Your task to perform on an android device: find snoozed emails in the gmail app Image 0: 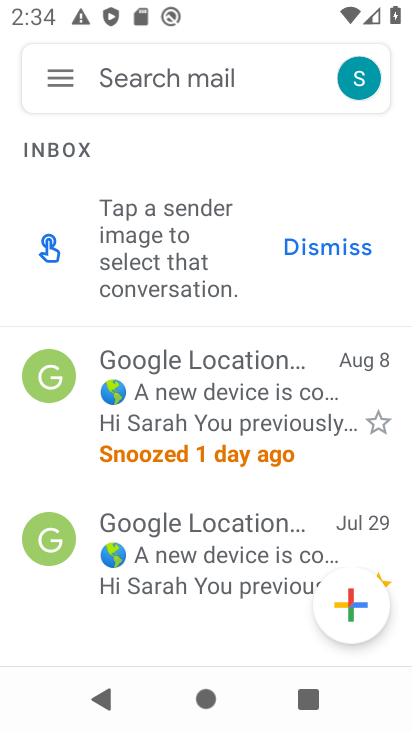
Step 0: drag from (373, 504) to (345, 39)
Your task to perform on an android device: find snoozed emails in the gmail app Image 1: 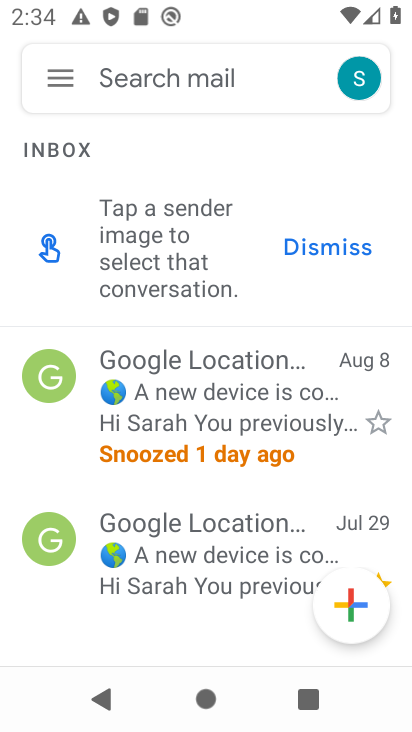
Step 1: press home button
Your task to perform on an android device: find snoozed emails in the gmail app Image 2: 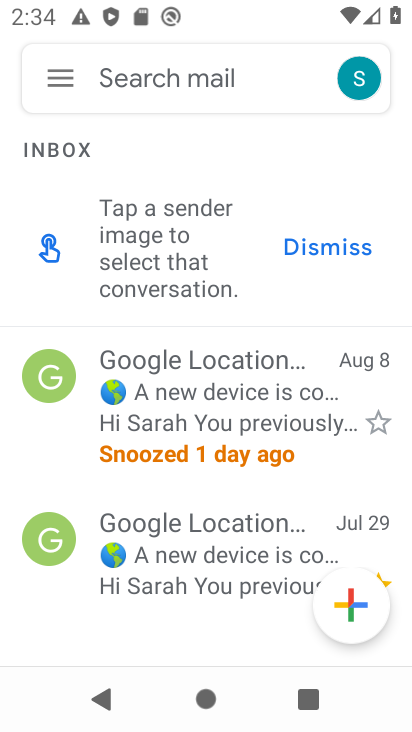
Step 2: press home button
Your task to perform on an android device: find snoozed emails in the gmail app Image 3: 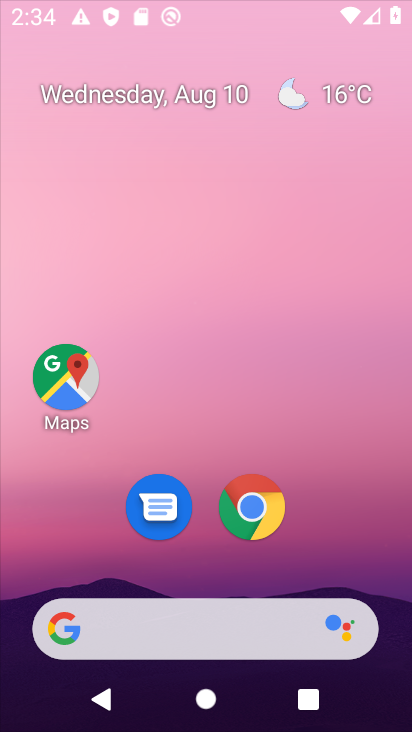
Step 3: press home button
Your task to perform on an android device: find snoozed emails in the gmail app Image 4: 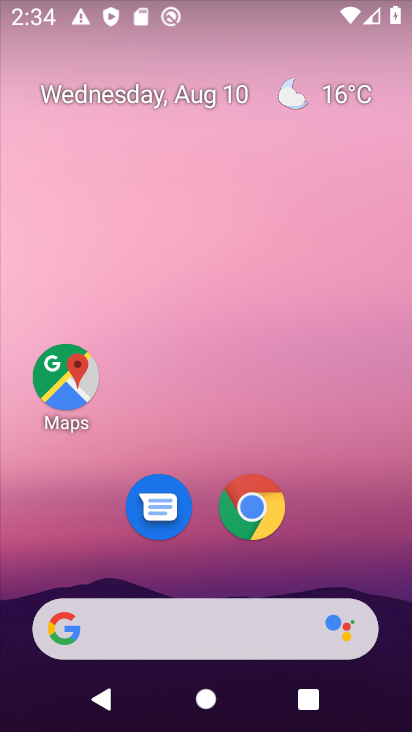
Step 4: drag from (346, 572) to (303, 3)
Your task to perform on an android device: find snoozed emails in the gmail app Image 5: 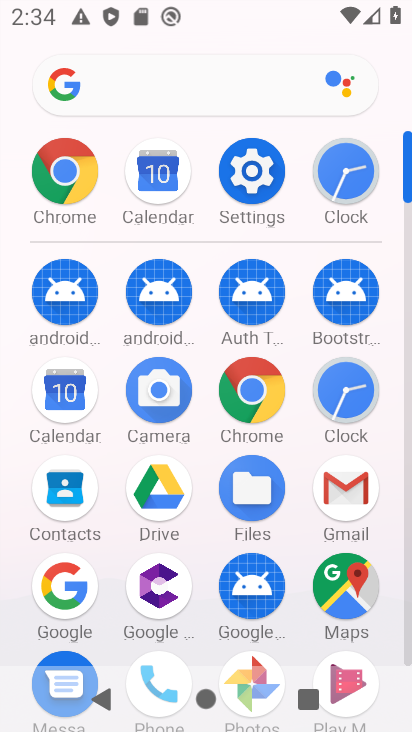
Step 5: click (340, 482)
Your task to perform on an android device: find snoozed emails in the gmail app Image 6: 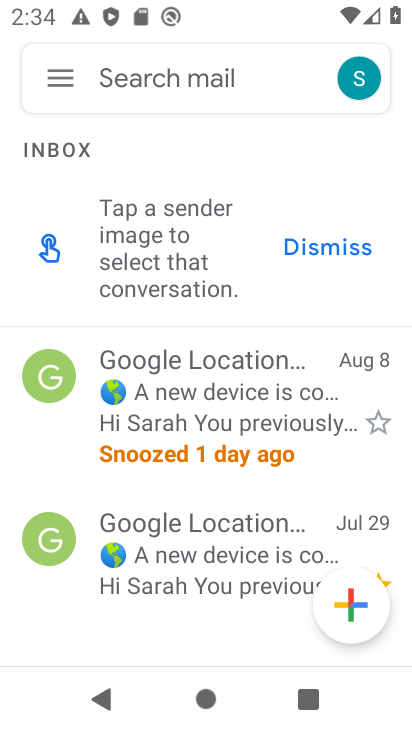
Step 6: click (69, 73)
Your task to perform on an android device: find snoozed emails in the gmail app Image 7: 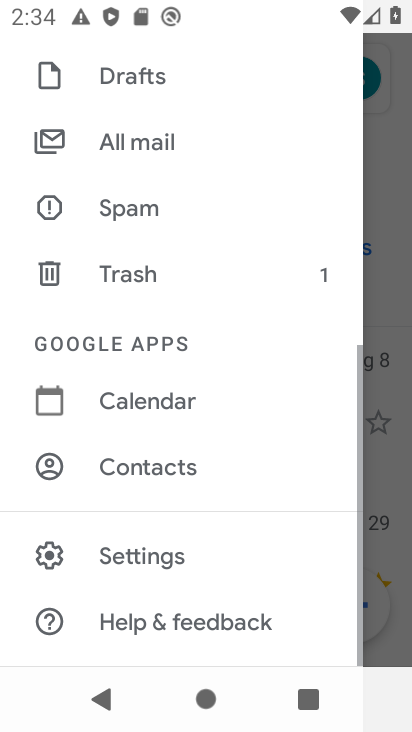
Step 7: drag from (151, 140) to (149, 712)
Your task to perform on an android device: find snoozed emails in the gmail app Image 8: 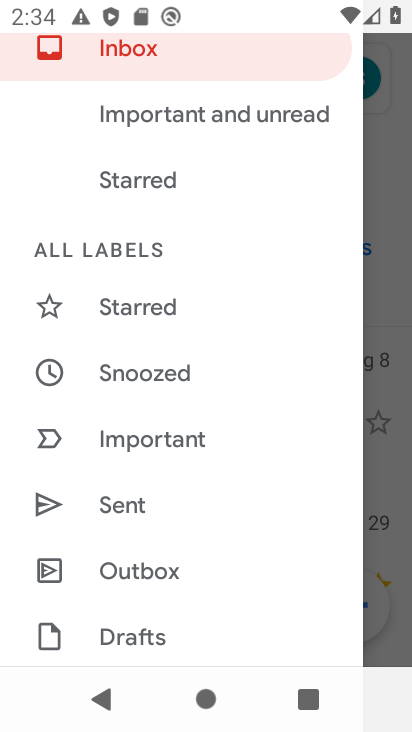
Step 8: click (138, 379)
Your task to perform on an android device: find snoozed emails in the gmail app Image 9: 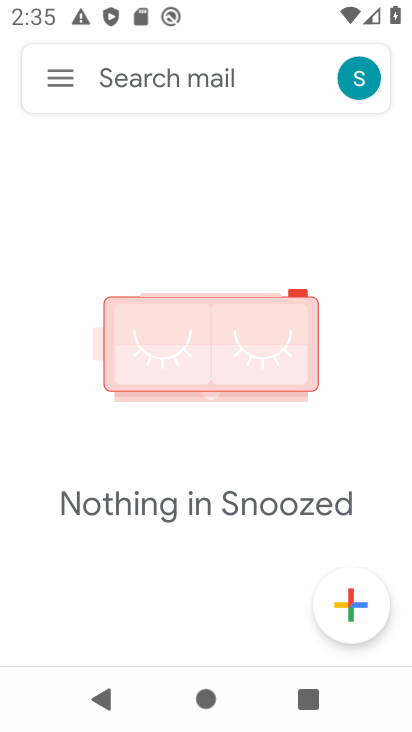
Step 9: task complete